Your task to perform on an android device: Open display settings Image 0: 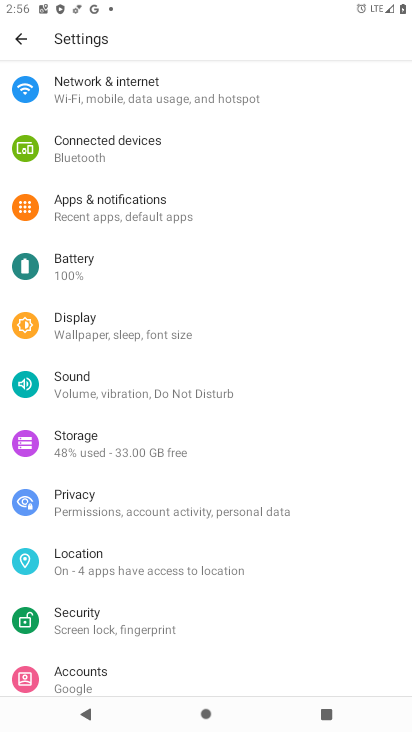
Step 0: click (107, 333)
Your task to perform on an android device: Open display settings Image 1: 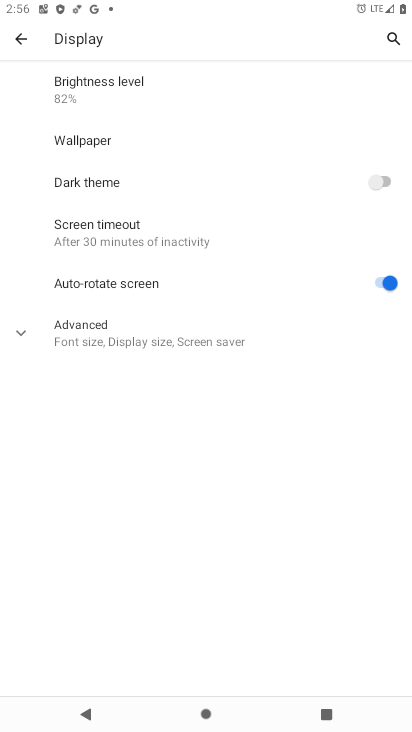
Step 1: task complete